Your task to perform on an android device: Do I have any events tomorrow? Image 0: 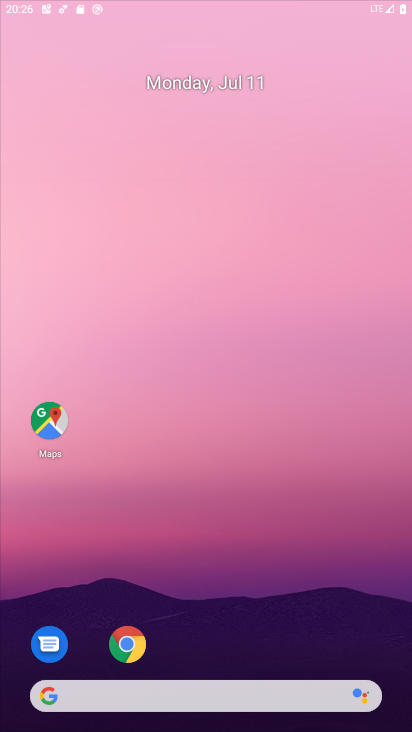
Step 0: drag from (247, 641) to (219, 122)
Your task to perform on an android device: Do I have any events tomorrow? Image 1: 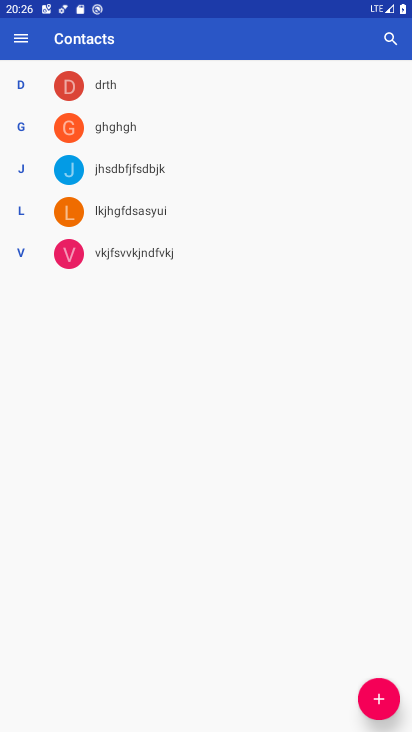
Step 1: press home button
Your task to perform on an android device: Do I have any events tomorrow? Image 2: 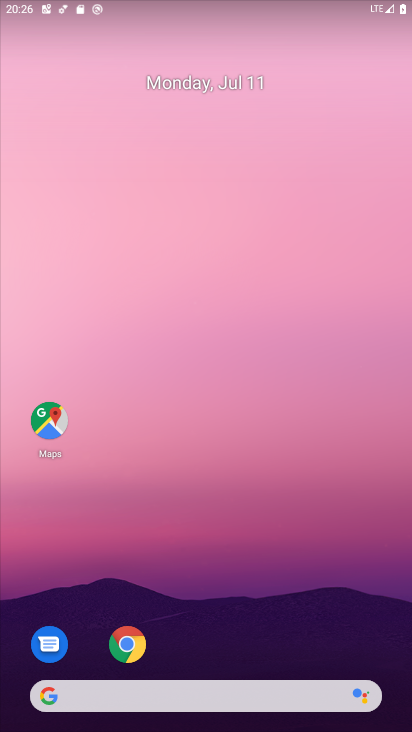
Step 2: drag from (261, 690) to (222, 139)
Your task to perform on an android device: Do I have any events tomorrow? Image 3: 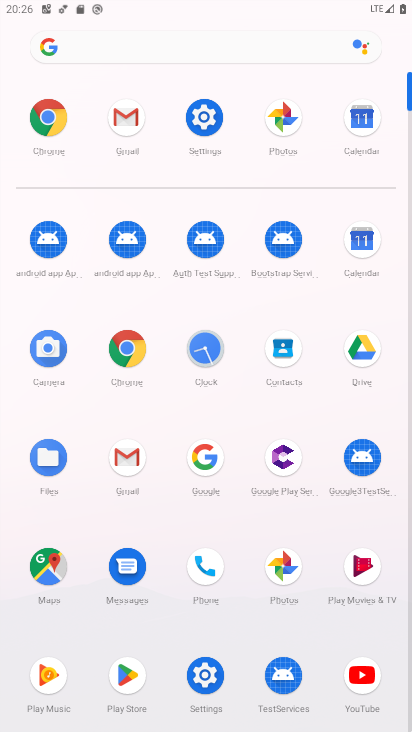
Step 3: click (357, 245)
Your task to perform on an android device: Do I have any events tomorrow? Image 4: 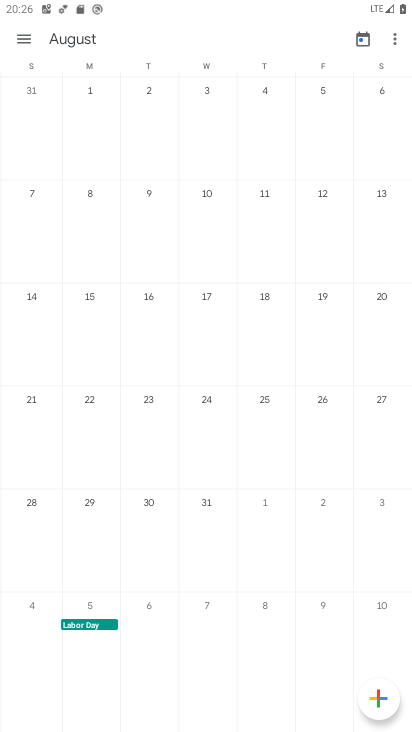
Step 4: click (22, 30)
Your task to perform on an android device: Do I have any events tomorrow? Image 5: 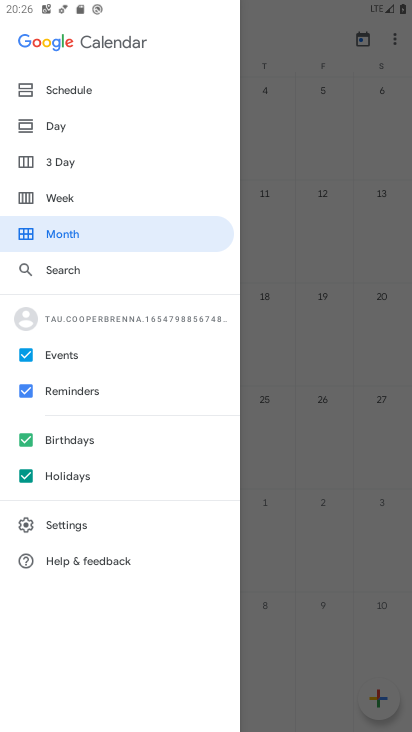
Step 5: click (89, 235)
Your task to perform on an android device: Do I have any events tomorrow? Image 6: 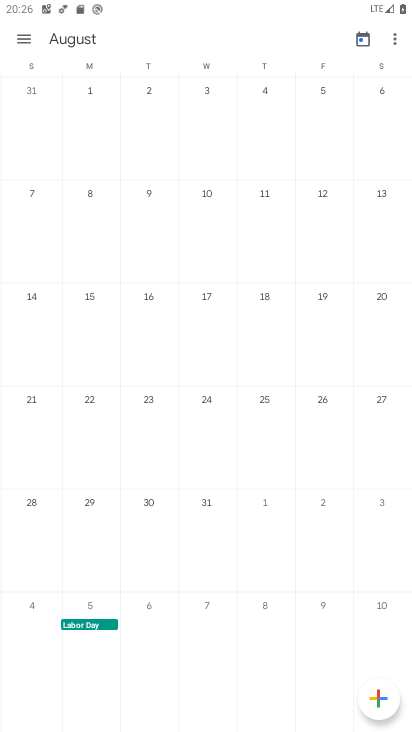
Step 6: drag from (38, 262) to (404, 259)
Your task to perform on an android device: Do I have any events tomorrow? Image 7: 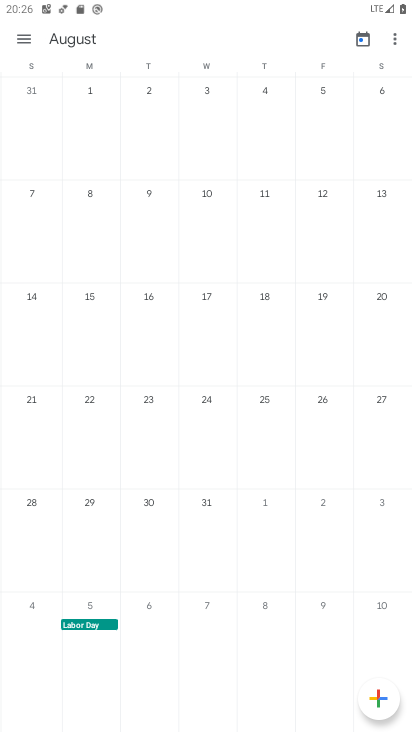
Step 7: drag from (15, 296) to (399, 300)
Your task to perform on an android device: Do I have any events tomorrow? Image 8: 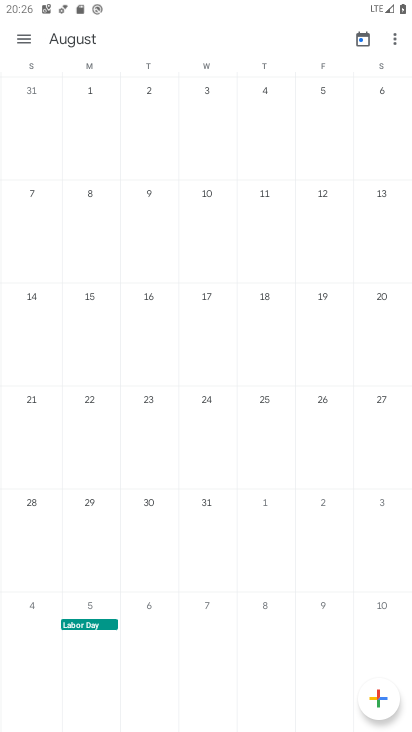
Step 8: drag from (6, 326) to (387, 316)
Your task to perform on an android device: Do I have any events tomorrow? Image 9: 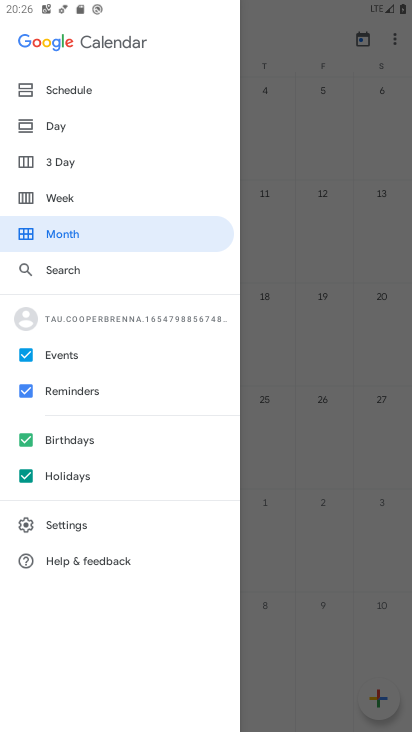
Step 9: drag from (120, 355) to (357, 389)
Your task to perform on an android device: Do I have any events tomorrow? Image 10: 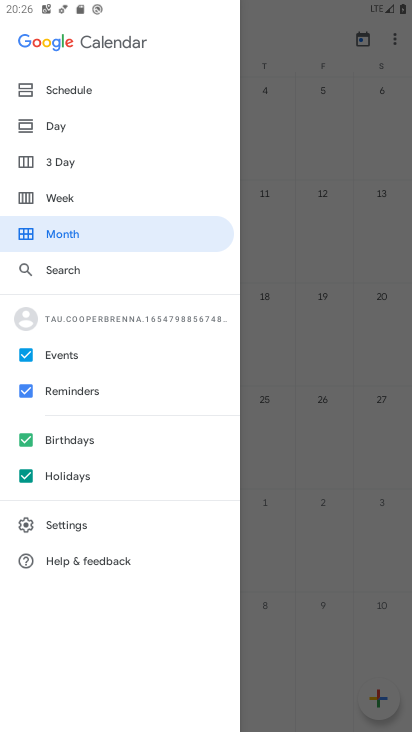
Step 10: drag from (197, 385) to (406, 386)
Your task to perform on an android device: Do I have any events tomorrow? Image 11: 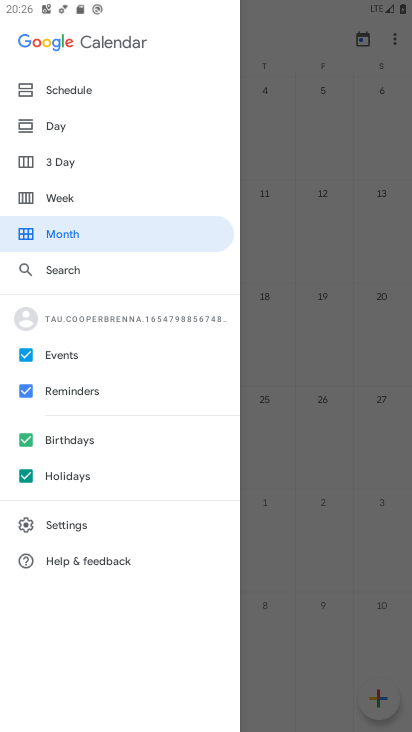
Step 11: click (96, 234)
Your task to perform on an android device: Do I have any events tomorrow? Image 12: 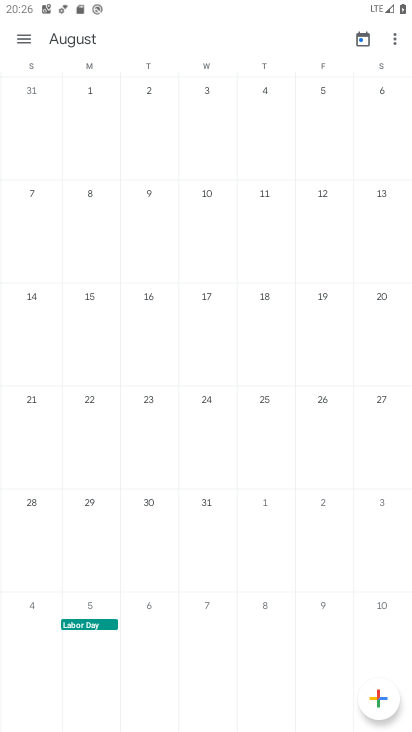
Step 12: drag from (50, 300) to (324, 259)
Your task to perform on an android device: Do I have any events tomorrow? Image 13: 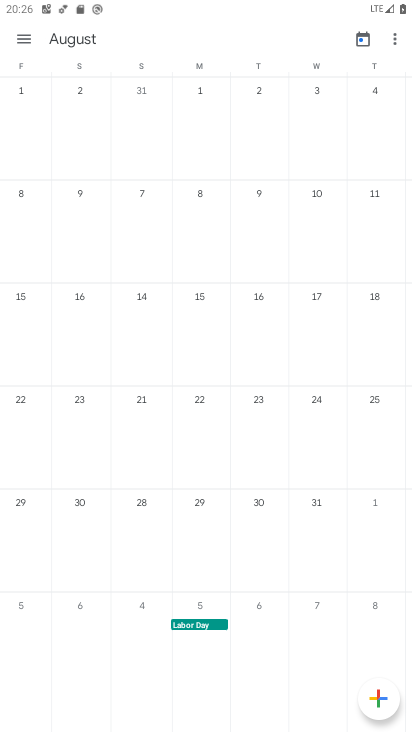
Step 13: drag from (85, 318) to (402, 351)
Your task to perform on an android device: Do I have any events tomorrow? Image 14: 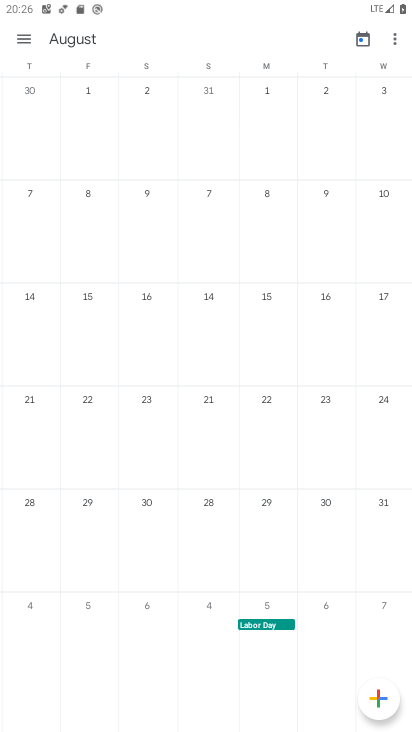
Step 14: drag from (235, 372) to (403, 398)
Your task to perform on an android device: Do I have any events tomorrow? Image 15: 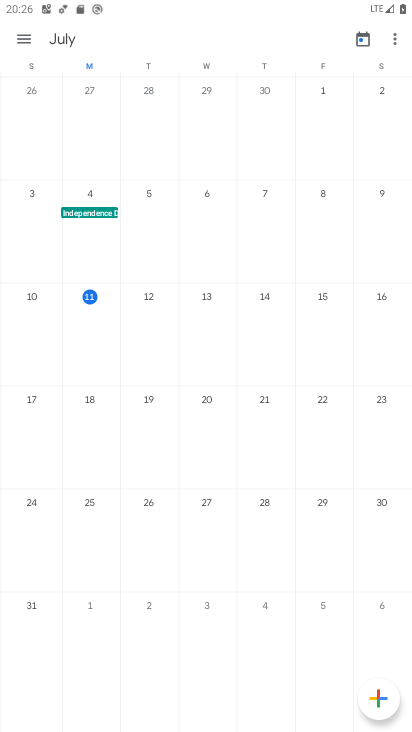
Step 15: click (205, 306)
Your task to perform on an android device: Do I have any events tomorrow? Image 16: 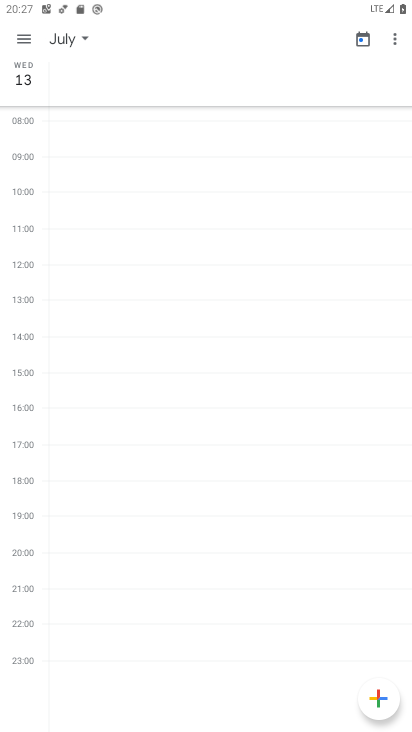
Step 16: task complete